Your task to perform on an android device: Open Google Chrome and open the bookmarks view Image 0: 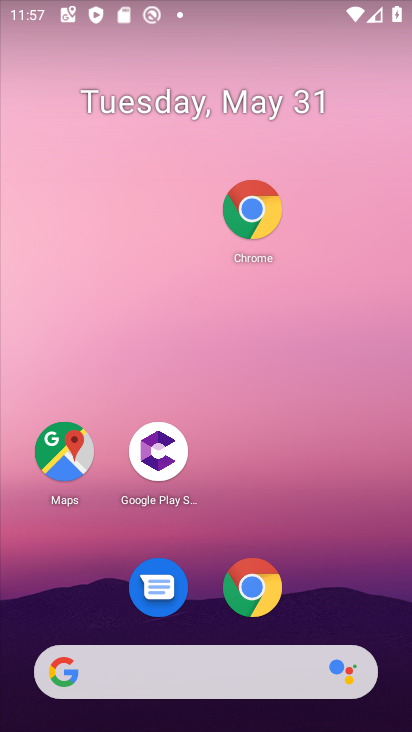
Step 0: click (257, 600)
Your task to perform on an android device: Open Google Chrome and open the bookmarks view Image 1: 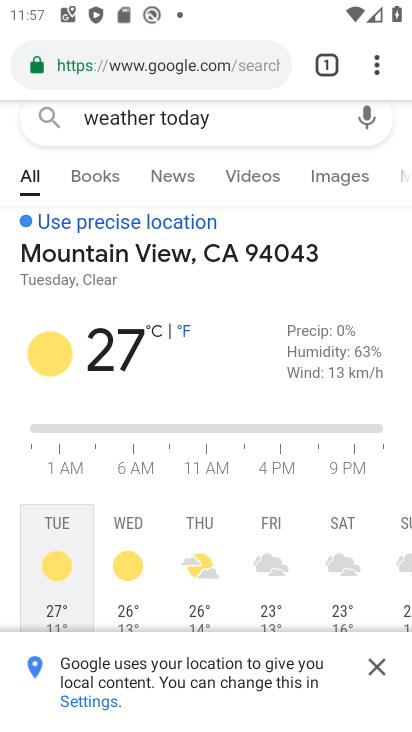
Step 1: click (378, 70)
Your task to perform on an android device: Open Google Chrome and open the bookmarks view Image 2: 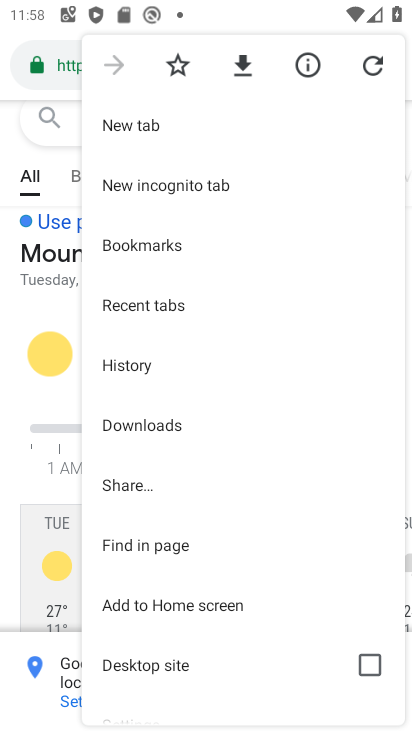
Step 2: click (229, 241)
Your task to perform on an android device: Open Google Chrome and open the bookmarks view Image 3: 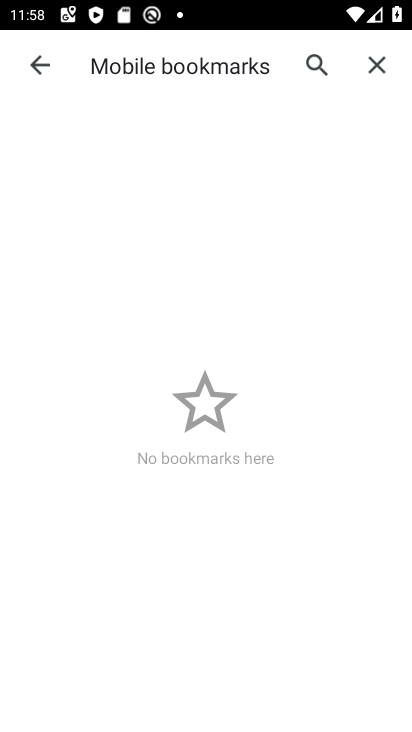
Step 3: task complete